Your task to perform on an android device: Search for energizer triple a on target, select the first entry, add it to the cart, then select checkout. Image 0: 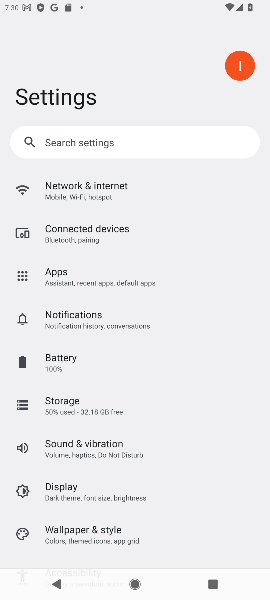
Step 0: press home button
Your task to perform on an android device: Search for energizer triple a on target, select the first entry, add it to the cart, then select checkout. Image 1: 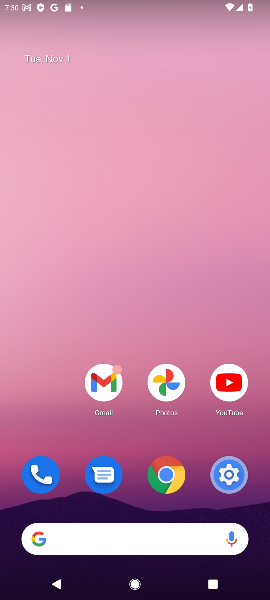
Step 1: click (116, 536)
Your task to perform on an android device: Search for energizer triple a on target, select the first entry, add it to the cart, then select checkout. Image 2: 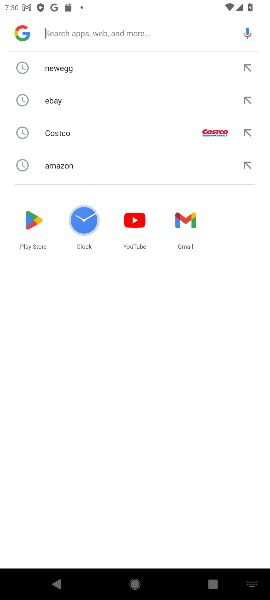
Step 2: type "target"
Your task to perform on an android device: Search for energizer triple a on target, select the first entry, add it to the cart, then select checkout. Image 3: 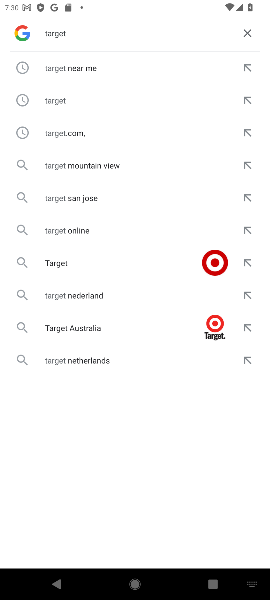
Step 3: type ".c0m"
Your task to perform on an android device: Search for energizer triple a on target, select the first entry, add it to the cart, then select checkout. Image 4: 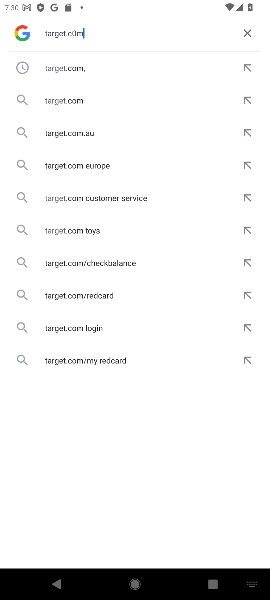
Step 4: click (60, 71)
Your task to perform on an android device: Search for energizer triple a on target, select the first entry, add it to the cart, then select checkout. Image 5: 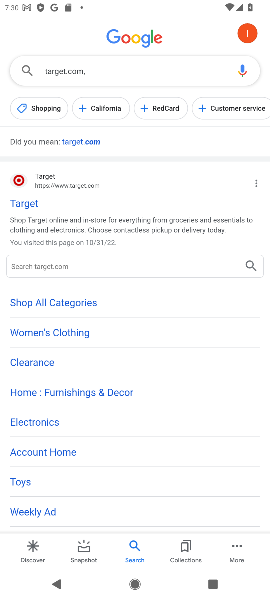
Step 5: click (21, 198)
Your task to perform on an android device: Search for energizer triple a on target, select the first entry, add it to the cart, then select checkout. Image 6: 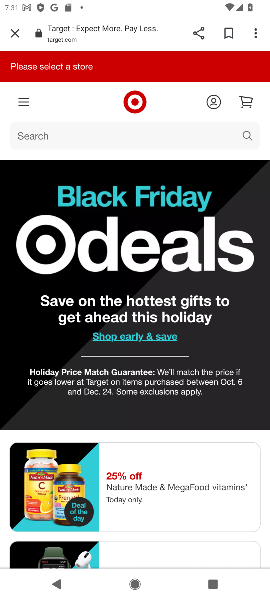
Step 6: click (239, 137)
Your task to perform on an android device: Search for energizer triple a on target, select the first entry, add it to the cart, then select checkout. Image 7: 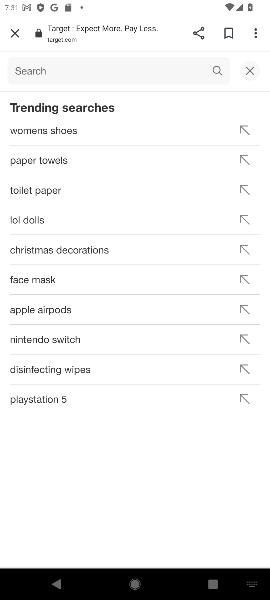
Step 7: type " energizer triple a "
Your task to perform on an android device: Search for energizer triple a on target, select the first entry, add it to the cart, then select checkout. Image 8: 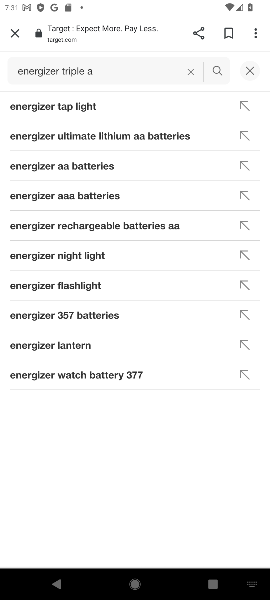
Step 8: click (58, 66)
Your task to perform on an android device: Search for energizer triple a on target, select the first entry, add it to the cart, then select checkout. Image 9: 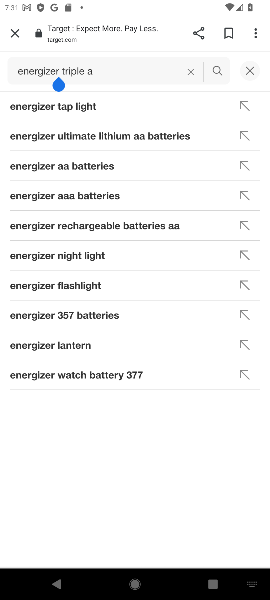
Step 9: click (42, 110)
Your task to perform on an android device: Search for energizer triple a on target, select the first entry, add it to the cart, then select checkout. Image 10: 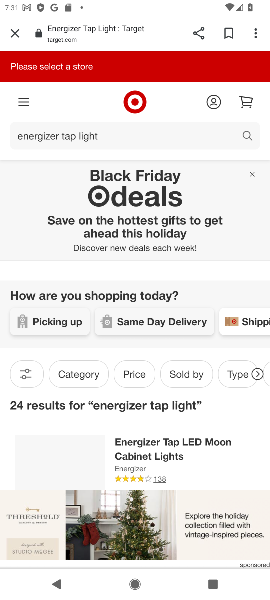
Step 10: click (96, 470)
Your task to perform on an android device: Search for energizer triple a on target, select the first entry, add it to the cart, then select checkout. Image 11: 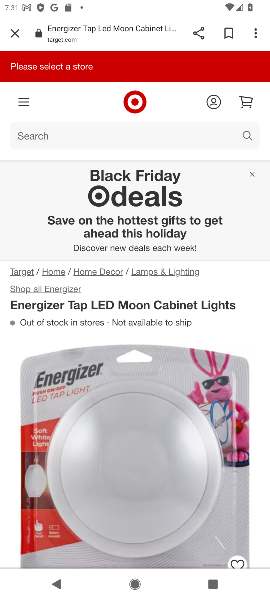
Step 11: drag from (132, 478) to (135, 196)
Your task to perform on an android device: Search for energizer triple a on target, select the first entry, add it to the cart, then select checkout. Image 12: 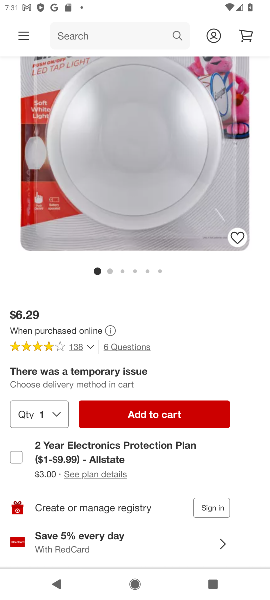
Step 12: click (173, 419)
Your task to perform on an android device: Search for energizer triple a on target, select the first entry, add it to the cart, then select checkout. Image 13: 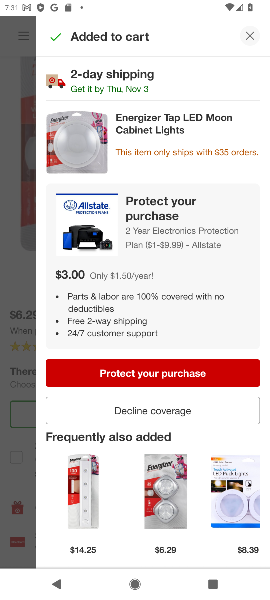
Step 13: click (250, 34)
Your task to perform on an android device: Search for energizer triple a on target, select the first entry, add it to the cart, then select checkout. Image 14: 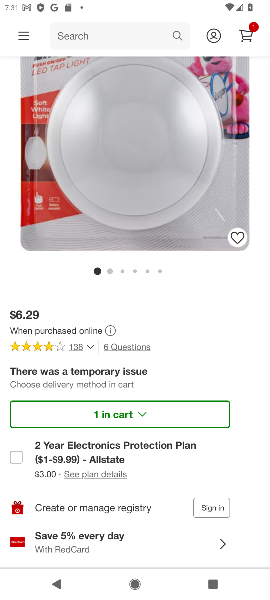
Step 14: click (250, 34)
Your task to perform on an android device: Search for energizer triple a on target, select the first entry, add it to the cart, then select checkout. Image 15: 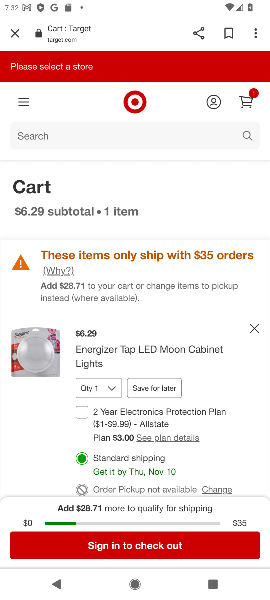
Step 15: drag from (162, 448) to (166, 179)
Your task to perform on an android device: Search for energizer triple a on target, select the first entry, add it to the cart, then select checkout. Image 16: 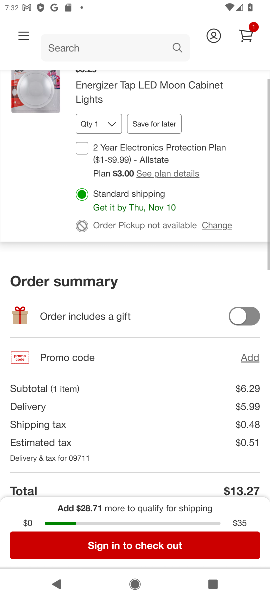
Step 16: click (144, 548)
Your task to perform on an android device: Search for energizer triple a on target, select the first entry, add it to the cart, then select checkout. Image 17: 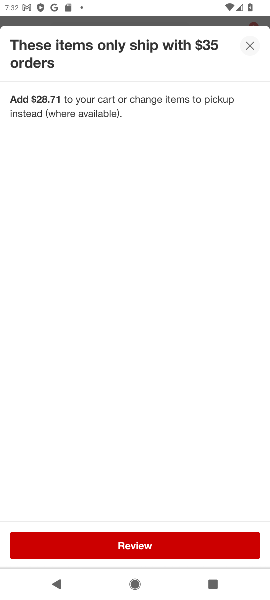
Step 17: click (144, 548)
Your task to perform on an android device: Search for energizer triple a on target, select the first entry, add it to the cart, then select checkout. Image 18: 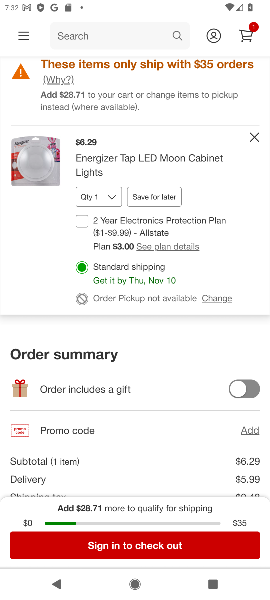
Step 18: task complete